Your task to perform on an android device: Go to Amazon Image 0: 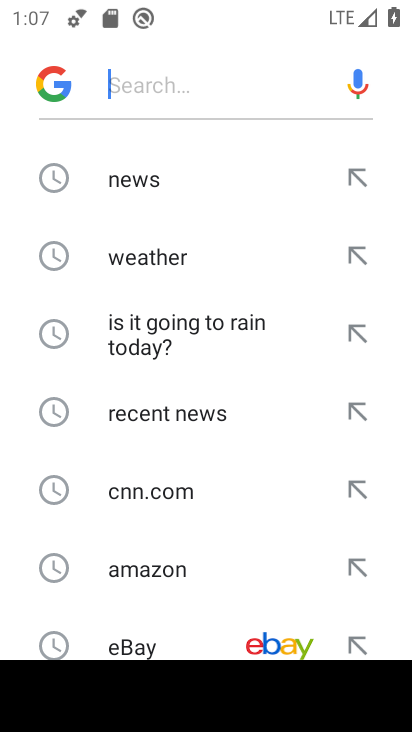
Step 0: press home button
Your task to perform on an android device: Go to Amazon Image 1: 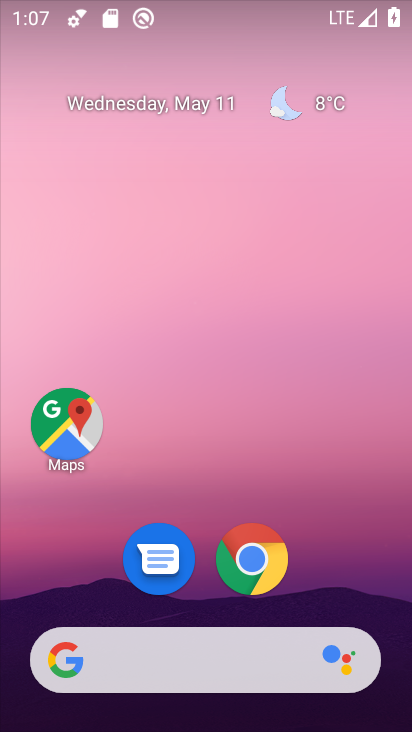
Step 1: click (255, 559)
Your task to perform on an android device: Go to Amazon Image 2: 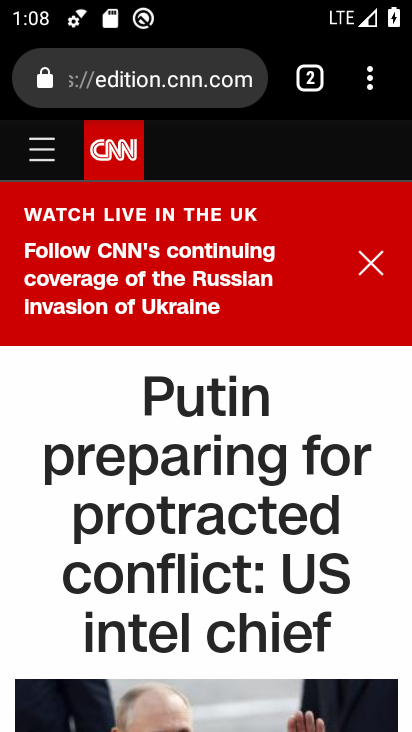
Step 2: click (372, 91)
Your task to perform on an android device: Go to Amazon Image 3: 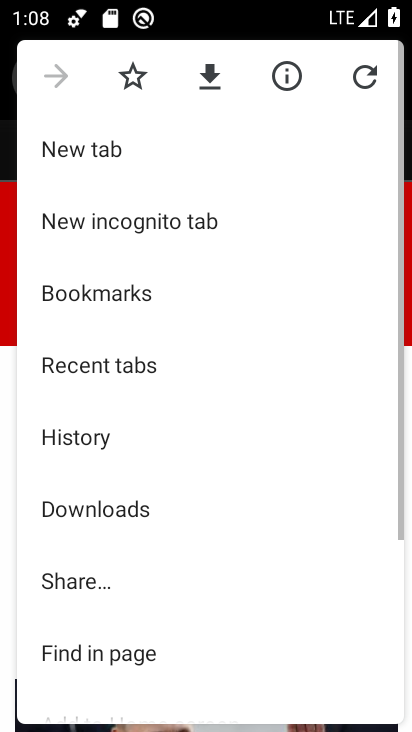
Step 3: click (90, 145)
Your task to perform on an android device: Go to Amazon Image 4: 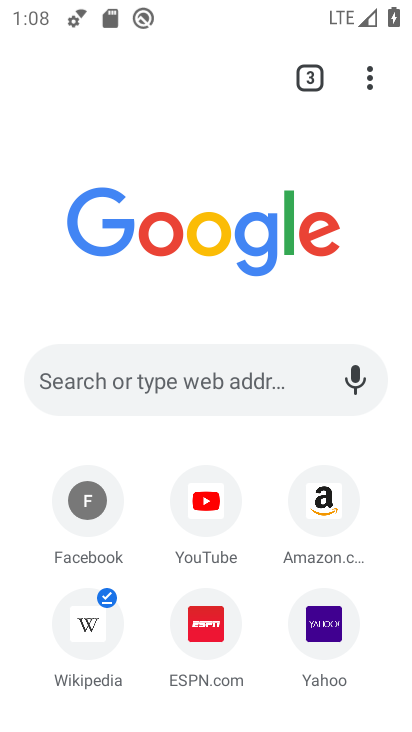
Step 4: click (319, 489)
Your task to perform on an android device: Go to Amazon Image 5: 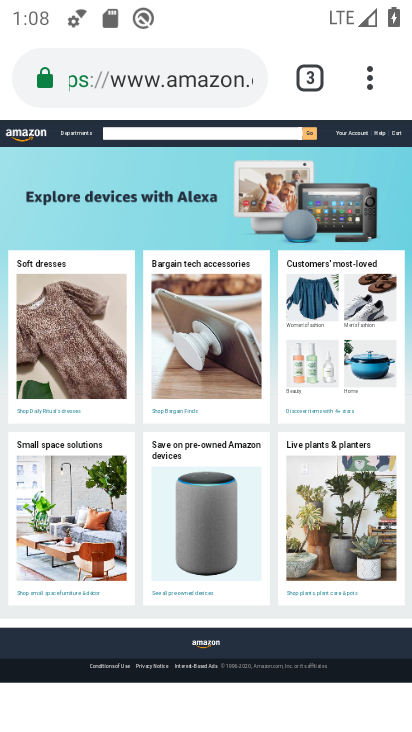
Step 5: task complete